Your task to perform on an android device: Search for the best coffee tables on Crate & Barrel Image 0: 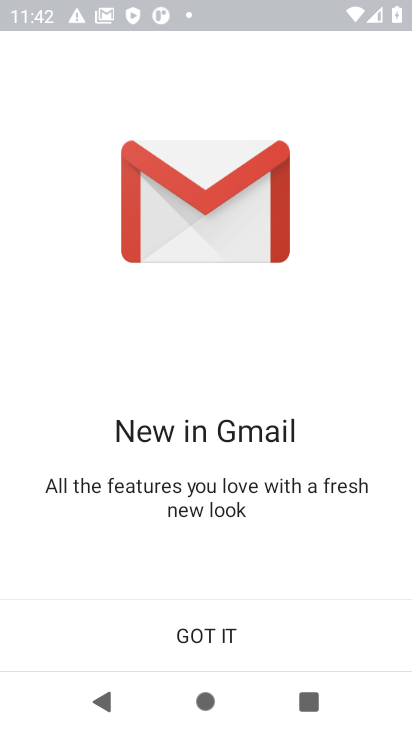
Step 0: press home button
Your task to perform on an android device: Search for the best coffee tables on Crate & Barrel Image 1: 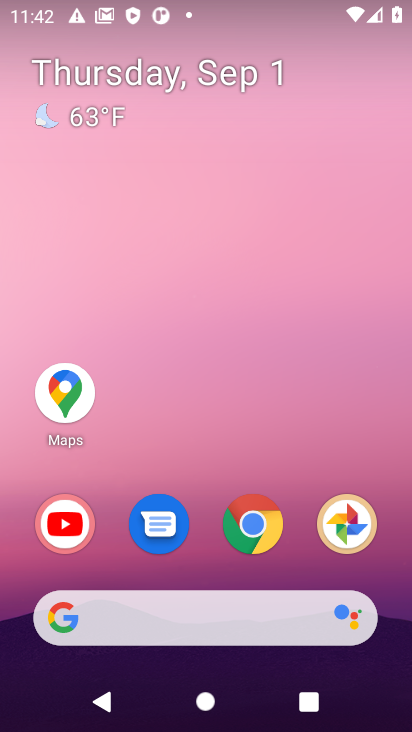
Step 1: click (248, 519)
Your task to perform on an android device: Search for the best coffee tables on Crate & Barrel Image 2: 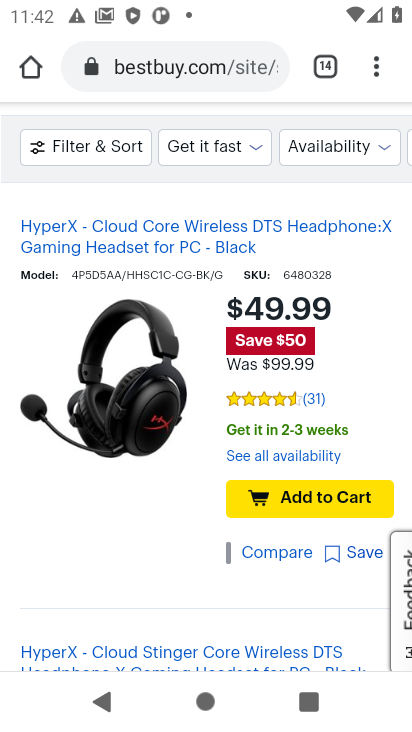
Step 2: click (329, 70)
Your task to perform on an android device: Search for the best coffee tables on Crate & Barrel Image 3: 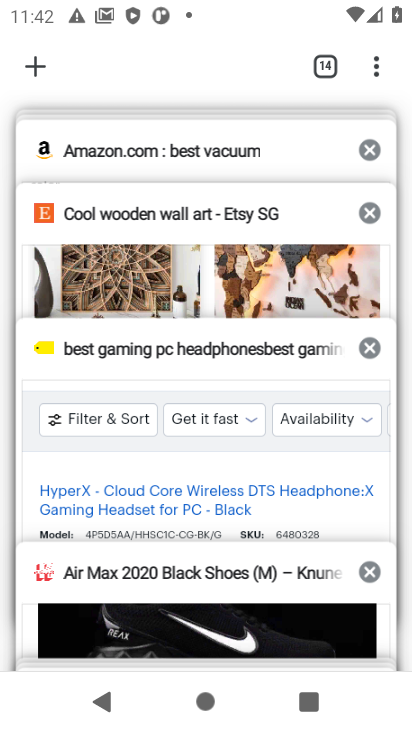
Step 3: drag from (106, 581) to (114, 207)
Your task to perform on an android device: Search for the best coffee tables on Crate & Barrel Image 4: 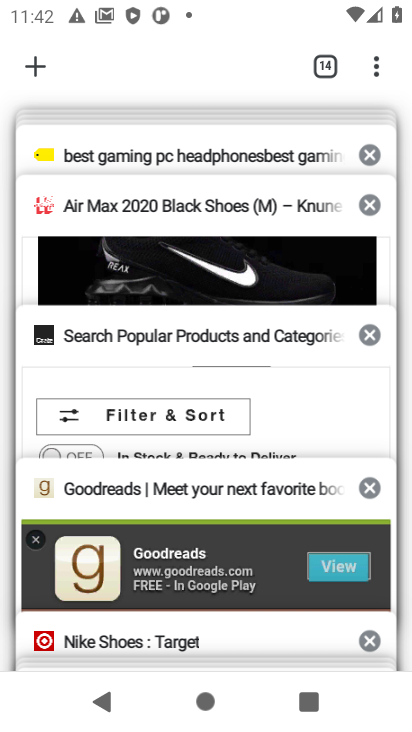
Step 4: click (139, 331)
Your task to perform on an android device: Search for the best coffee tables on Crate & Barrel Image 5: 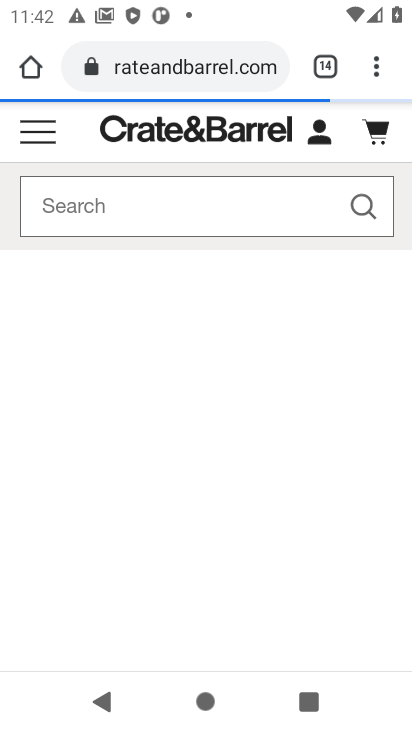
Step 5: task complete